Your task to perform on an android device: turn off smart reply in the gmail app Image 0: 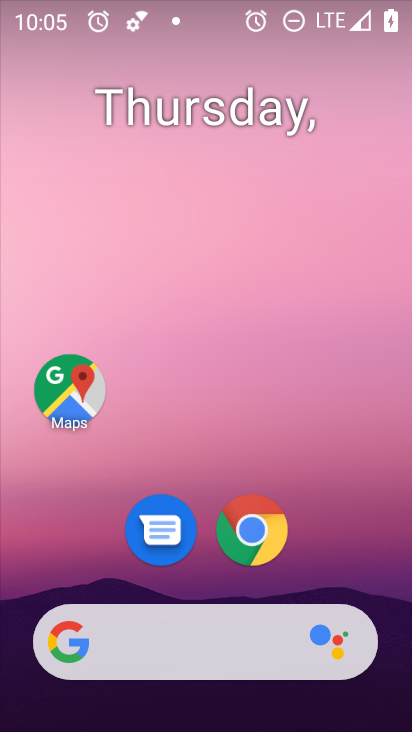
Step 0: drag from (353, 519) to (228, 33)
Your task to perform on an android device: turn off smart reply in the gmail app Image 1: 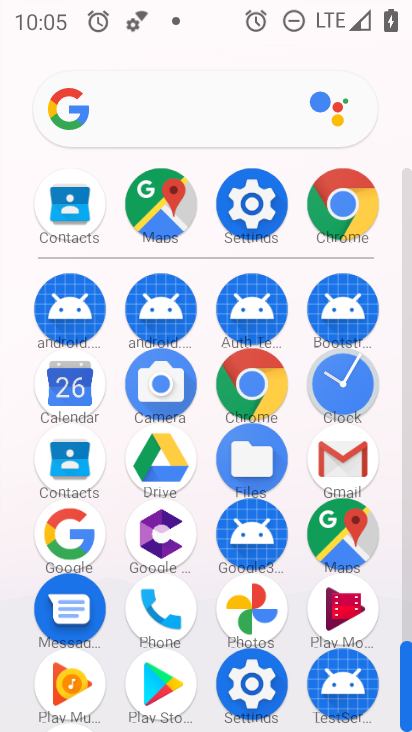
Step 1: drag from (0, 366) to (4, 212)
Your task to perform on an android device: turn off smart reply in the gmail app Image 2: 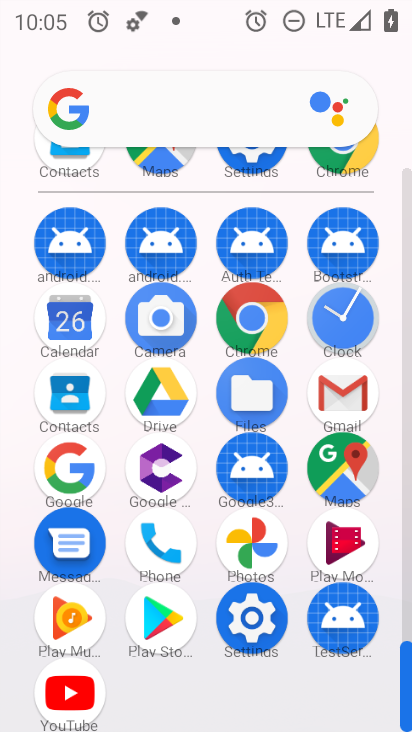
Step 2: click (344, 388)
Your task to perform on an android device: turn off smart reply in the gmail app Image 3: 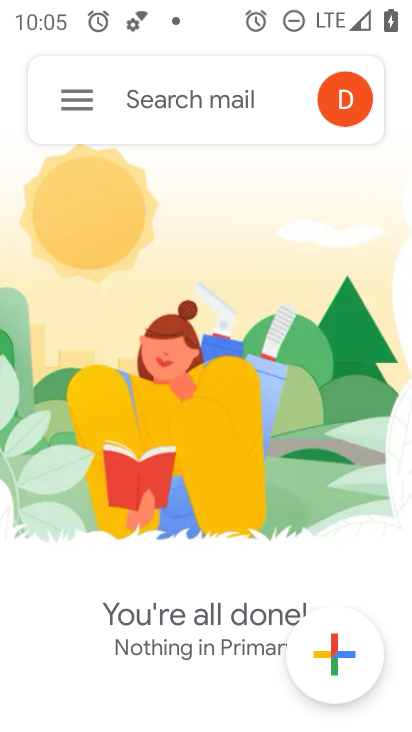
Step 3: click (83, 91)
Your task to perform on an android device: turn off smart reply in the gmail app Image 4: 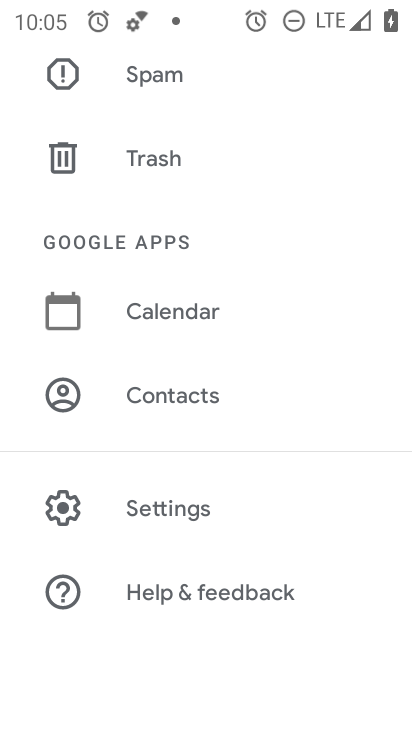
Step 4: click (178, 510)
Your task to perform on an android device: turn off smart reply in the gmail app Image 5: 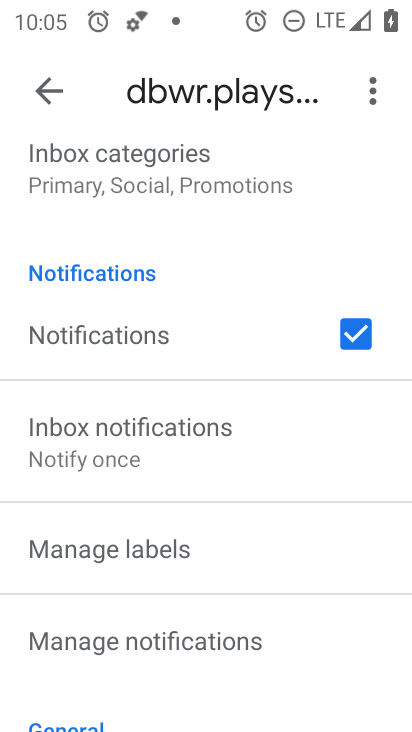
Step 5: task complete